Your task to perform on an android device: turn off javascript in the chrome app Image 0: 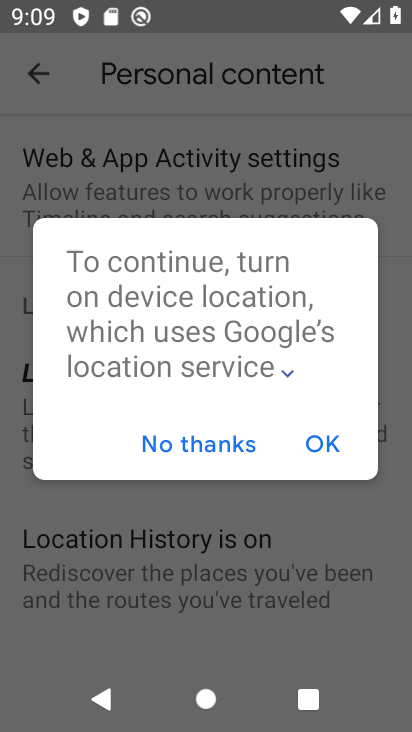
Step 0: press home button
Your task to perform on an android device: turn off javascript in the chrome app Image 1: 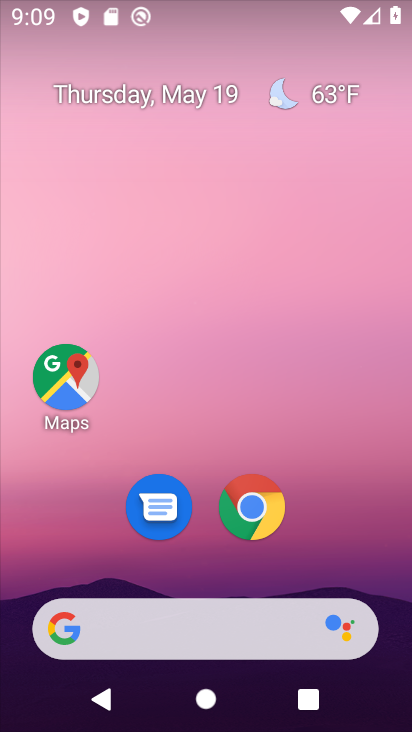
Step 1: drag from (343, 562) to (307, 122)
Your task to perform on an android device: turn off javascript in the chrome app Image 2: 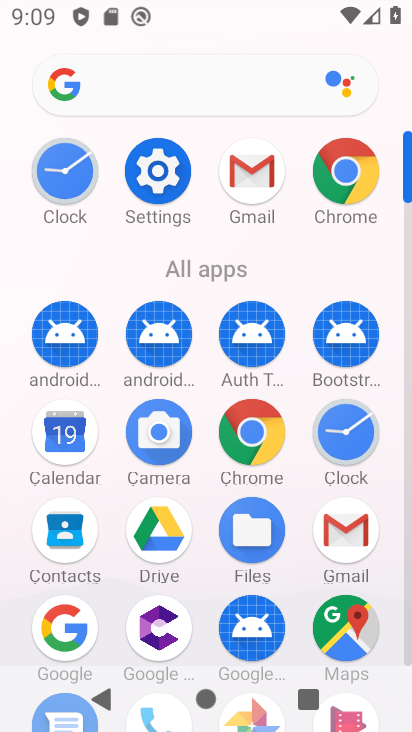
Step 2: click (333, 188)
Your task to perform on an android device: turn off javascript in the chrome app Image 3: 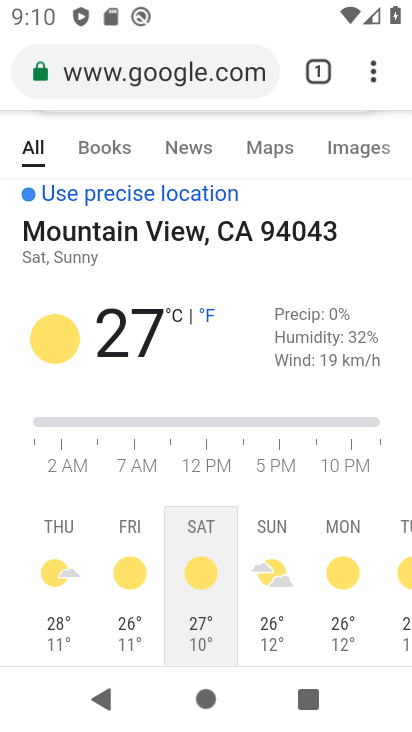
Step 3: click (373, 96)
Your task to perform on an android device: turn off javascript in the chrome app Image 4: 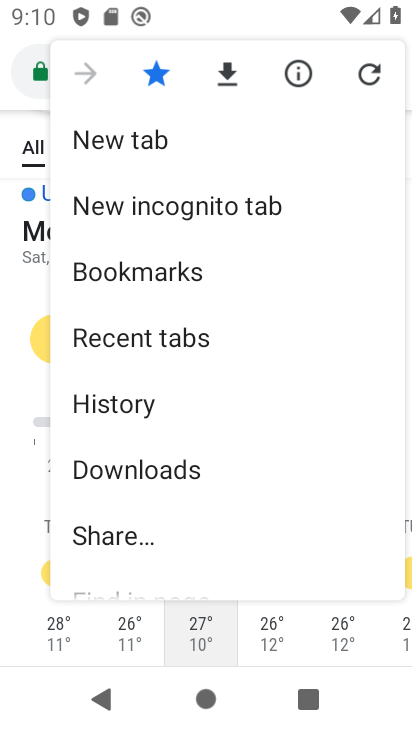
Step 4: drag from (227, 576) to (217, 137)
Your task to perform on an android device: turn off javascript in the chrome app Image 5: 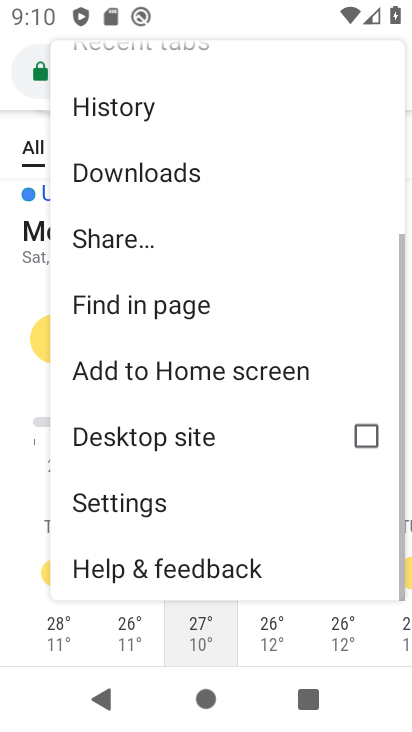
Step 5: click (167, 498)
Your task to perform on an android device: turn off javascript in the chrome app Image 6: 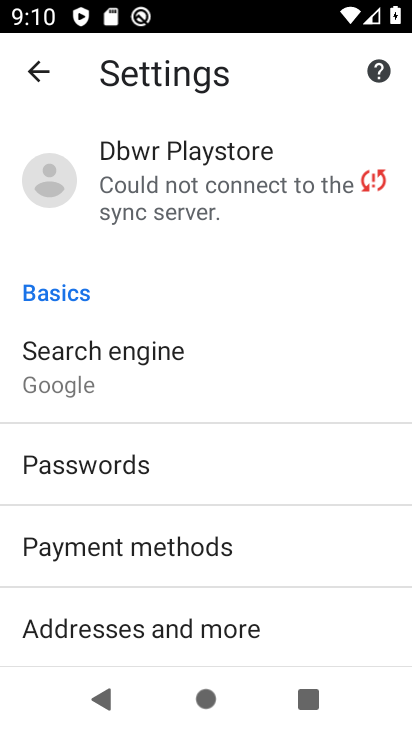
Step 6: drag from (262, 614) to (213, 161)
Your task to perform on an android device: turn off javascript in the chrome app Image 7: 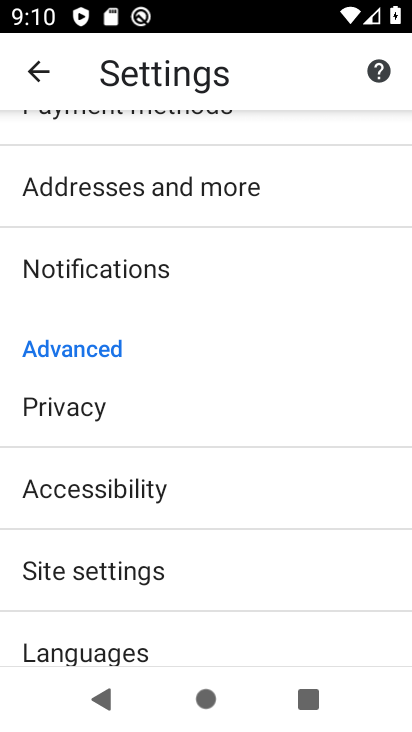
Step 7: click (248, 578)
Your task to perform on an android device: turn off javascript in the chrome app Image 8: 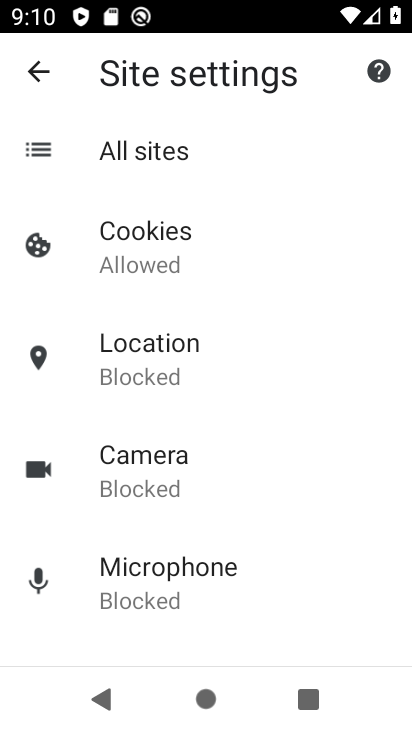
Step 8: drag from (290, 598) to (271, 248)
Your task to perform on an android device: turn off javascript in the chrome app Image 9: 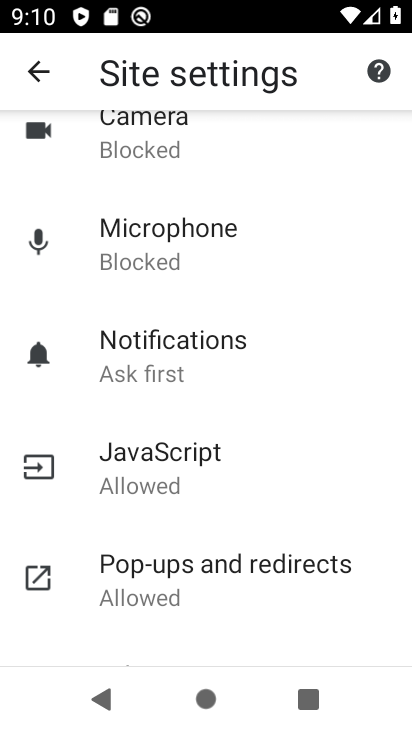
Step 9: click (289, 484)
Your task to perform on an android device: turn off javascript in the chrome app Image 10: 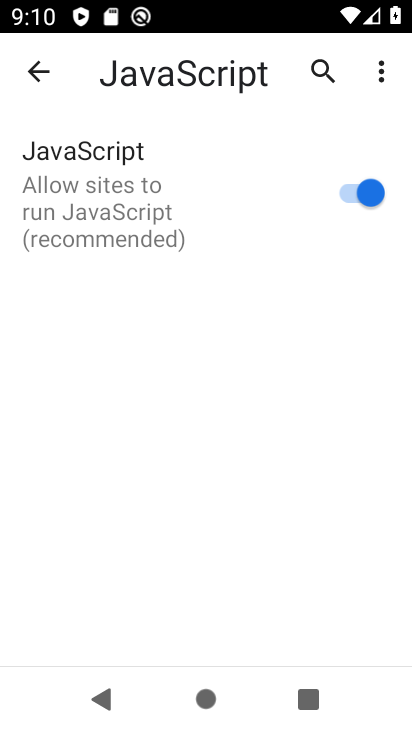
Step 10: click (346, 201)
Your task to perform on an android device: turn off javascript in the chrome app Image 11: 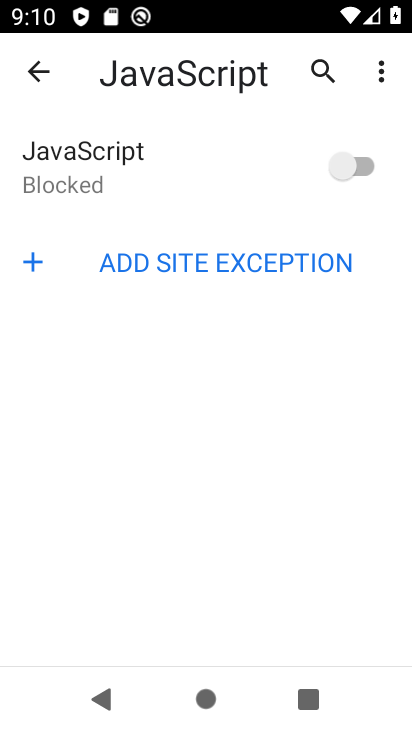
Step 11: task complete